Your task to perform on an android device: empty trash in google photos Image 0: 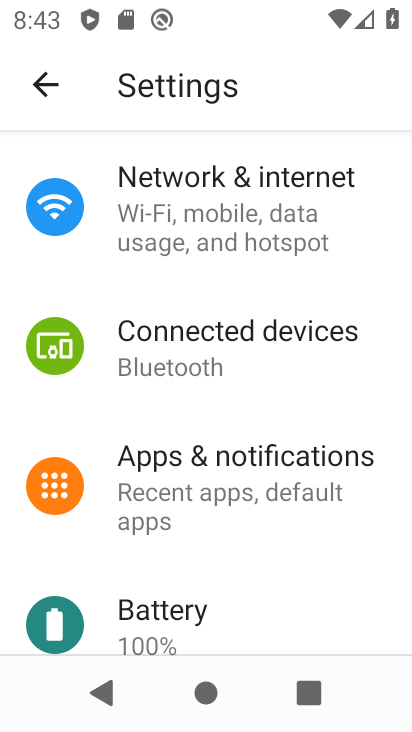
Step 0: press home button
Your task to perform on an android device: empty trash in google photos Image 1: 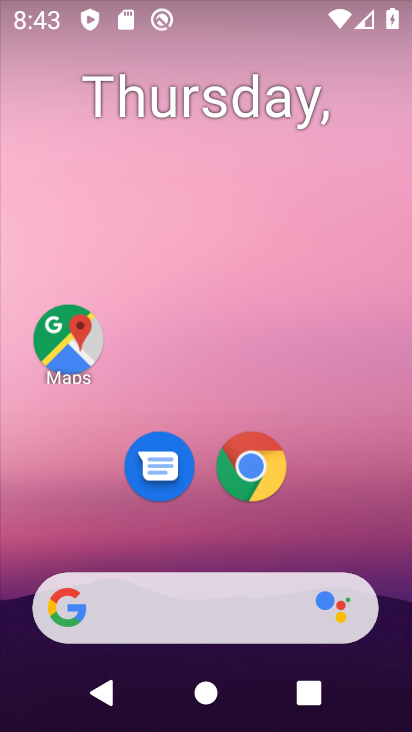
Step 1: drag from (150, 603) to (234, 102)
Your task to perform on an android device: empty trash in google photos Image 2: 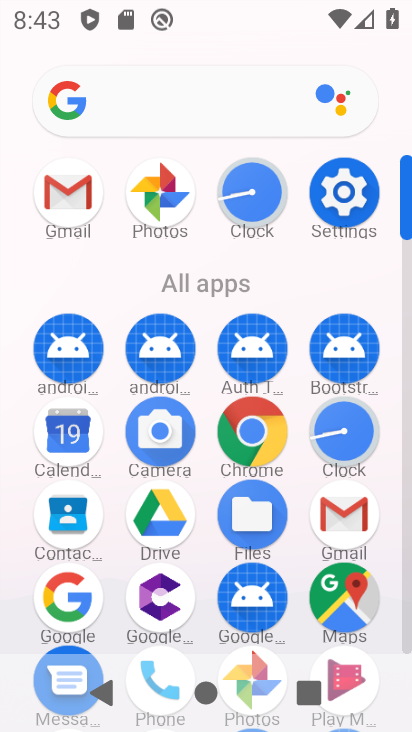
Step 2: click (143, 213)
Your task to perform on an android device: empty trash in google photos Image 3: 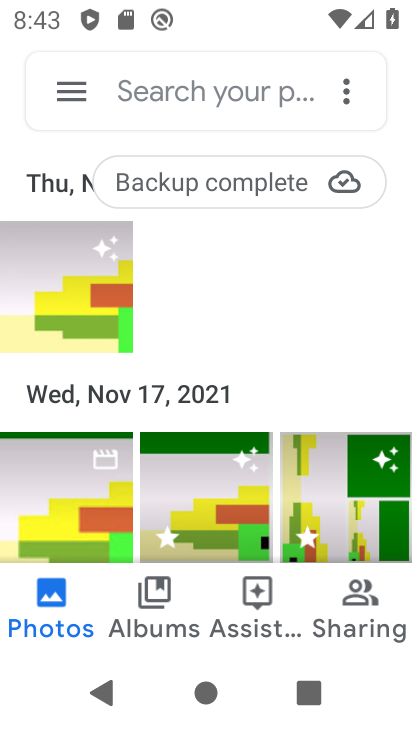
Step 3: click (63, 86)
Your task to perform on an android device: empty trash in google photos Image 4: 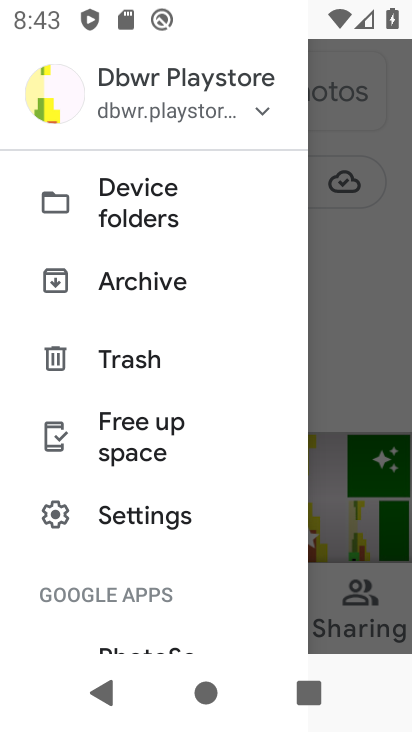
Step 4: click (122, 354)
Your task to perform on an android device: empty trash in google photos Image 5: 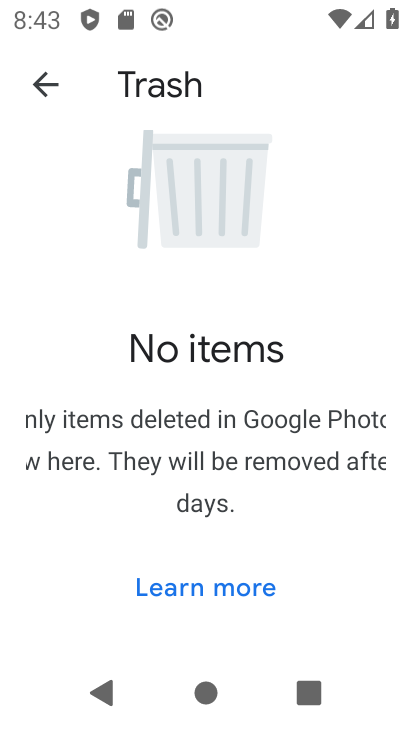
Step 5: task complete